Your task to perform on an android device: Open Youtube and go to the subscriptions tab Image 0: 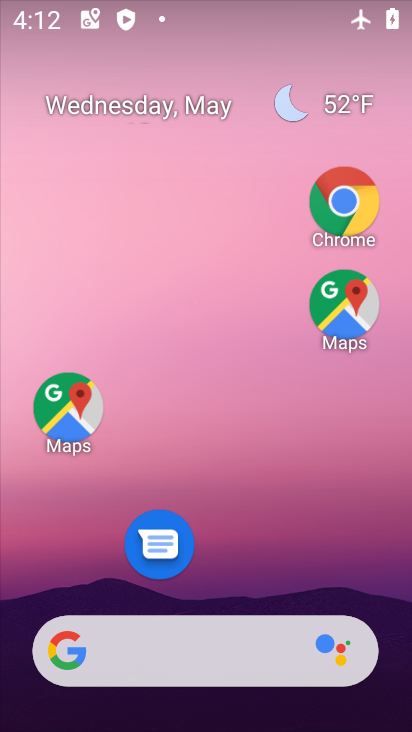
Step 0: drag from (294, 499) to (278, 76)
Your task to perform on an android device: Open Youtube and go to the subscriptions tab Image 1: 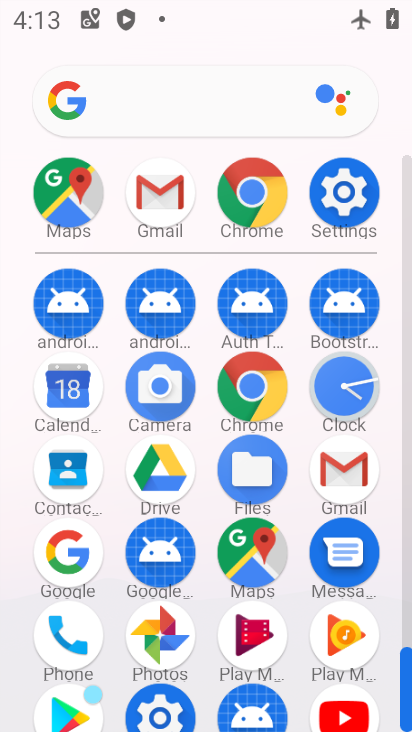
Step 1: click (335, 720)
Your task to perform on an android device: Open Youtube and go to the subscriptions tab Image 2: 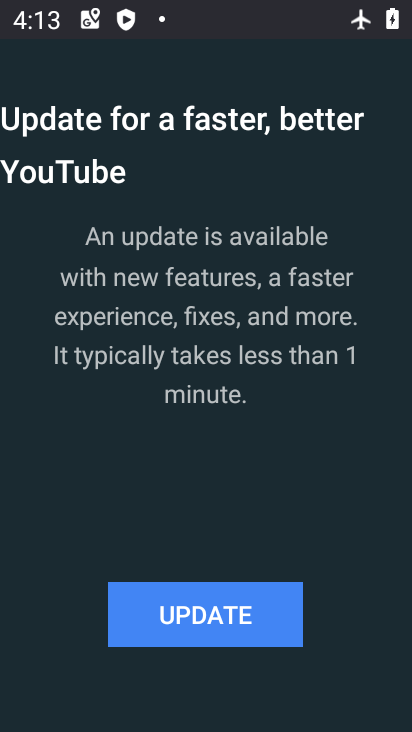
Step 2: click (258, 631)
Your task to perform on an android device: Open Youtube and go to the subscriptions tab Image 3: 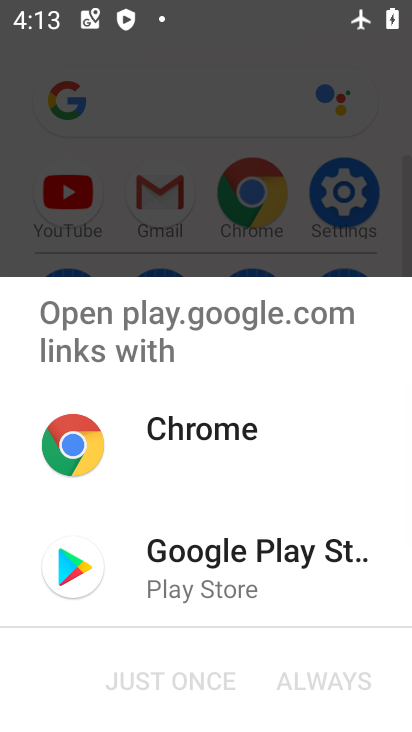
Step 3: click (255, 603)
Your task to perform on an android device: Open Youtube and go to the subscriptions tab Image 4: 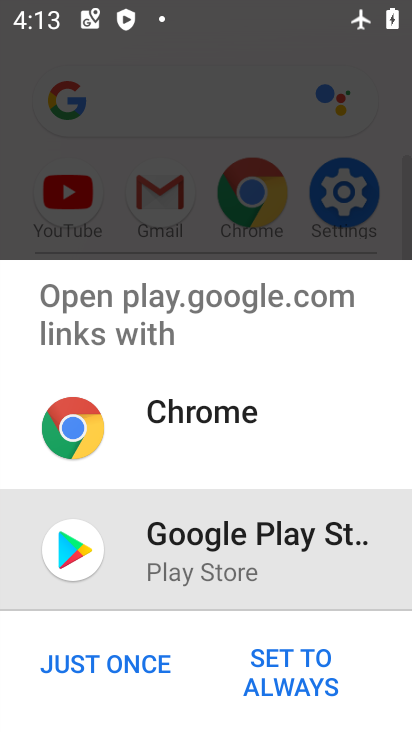
Step 4: click (300, 672)
Your task to perform on an android device: Open Youtube and go to the subscriptions tab Image 5: 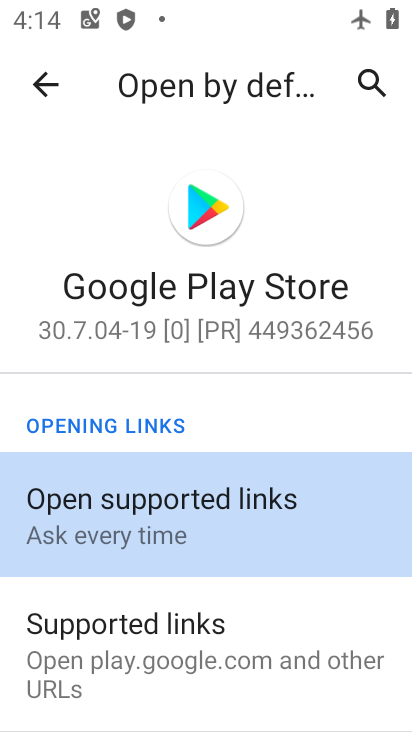
Step 5: click (206, 536)
Your task to perform on an android device: Open Youtube and go to the subscriptions tab Image 6: 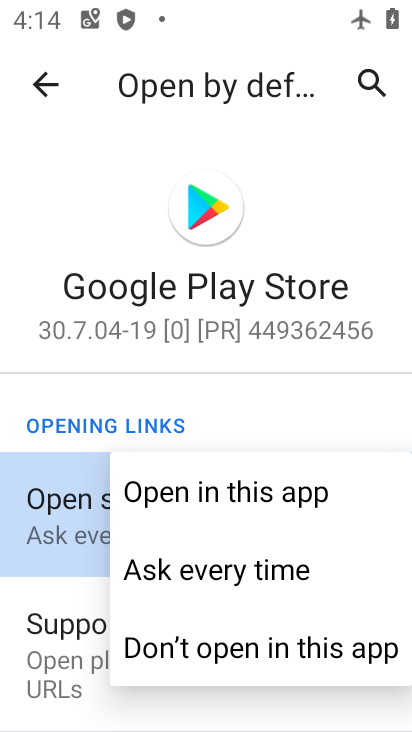
Step 6: click (157, 495)
Your task to perform on an android device: Open Youtube and go to the subscriptions tab Image 7: 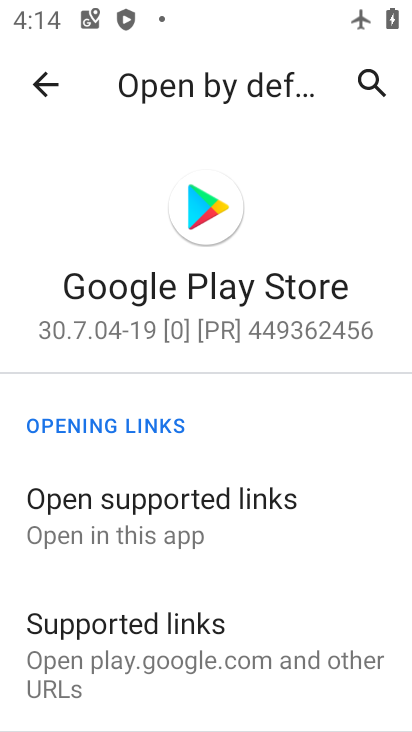
Step 7: click (198, 529)
Your task to perform on an android device: Open Youtube and go to the subscriptions tab Image 8: 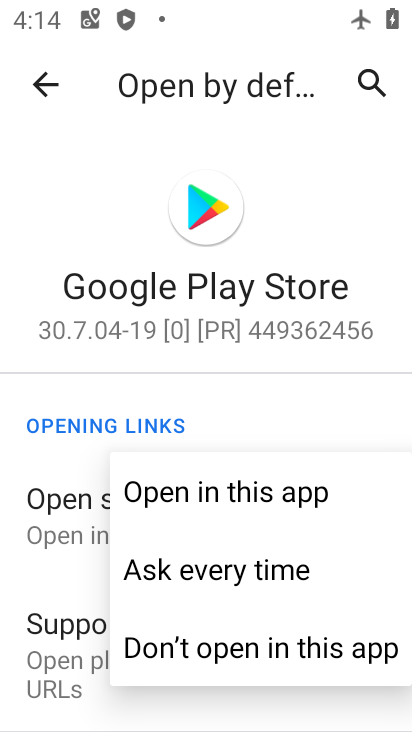
Step 8: click (227, 489)
Your task to perform on an android device: Open Youtube and go to the subscriptions tab Image 9: 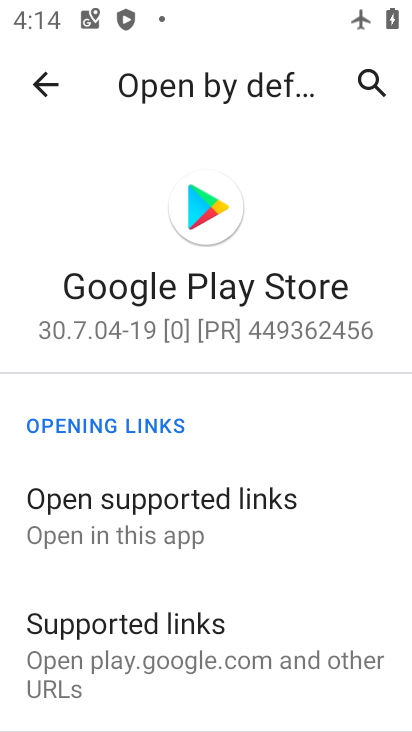
Step 9: click (47, 80)
Your task to perform on an android device: Open Youtube and go to the subscriptions tab Image 10: 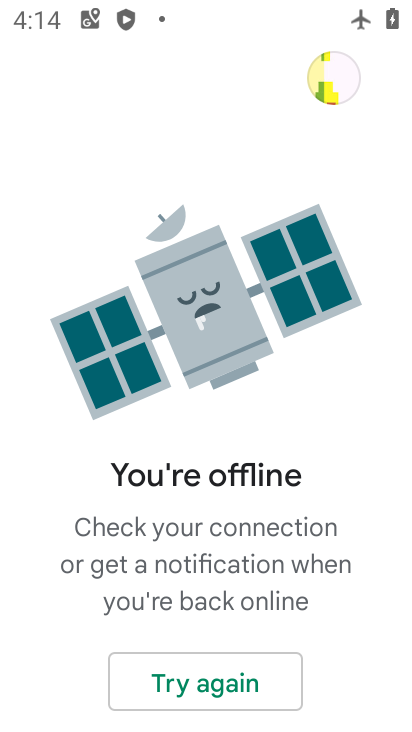
Step 10: task complete